Your task to perform on an android device: Toggle the flashlight Image 0: 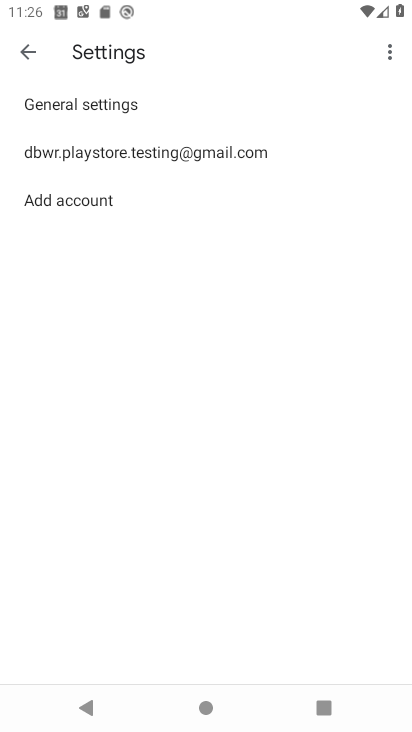
Step 0: press home button
Your task to perform on an android device: Toggle the flashlight Image 1: 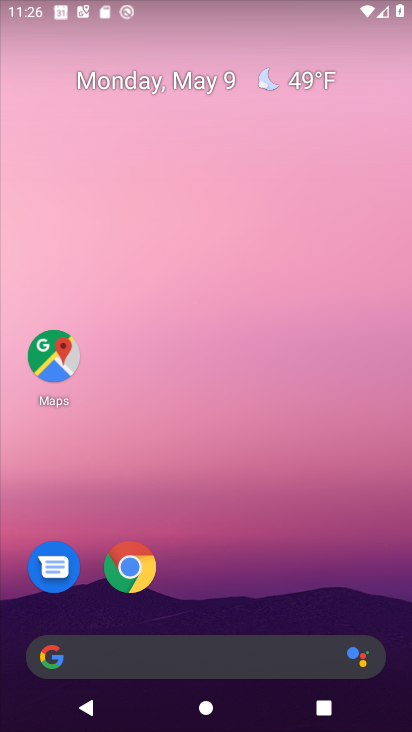
Step 1: drag from (217, 0) to (103, 418)
Your task to perform on an android device: Toggle the flashlight Image 2: 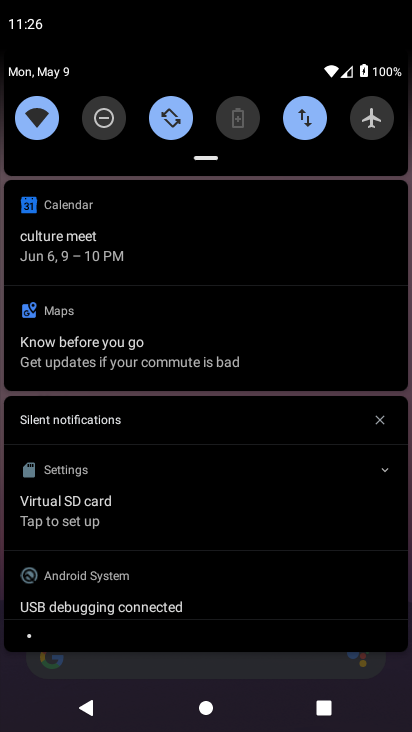
Step 2: drag from (230, 164) to (152, 530)
Your task to perform on an android device: Toggle the flashlight Image 3: 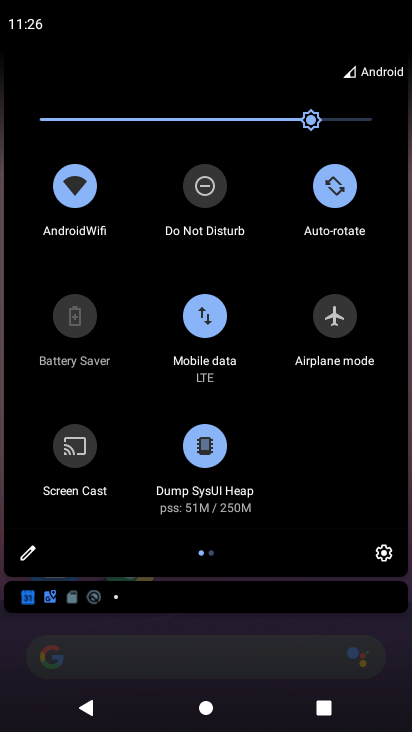
Step 3: drag from (339, 356) to (39, 318)
Your task to perform on an android device: Toggle the flashlight Image 4: 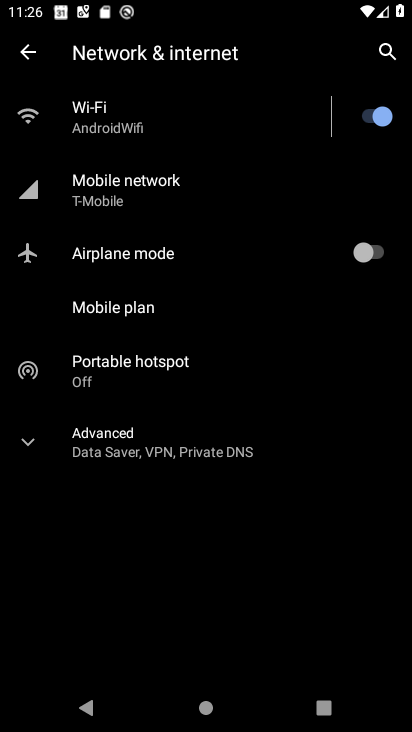
Step 4: click (24, 58)
Your task to perform on an android device: Toggle the flashlight Image 5: 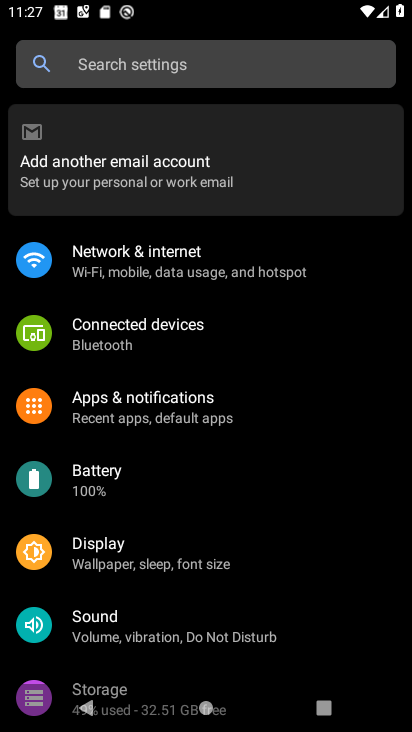
Step 5: drag from (239, 17) to (149, 433)
Your task to perform on an android device: Toggle the flashlight Image 6: 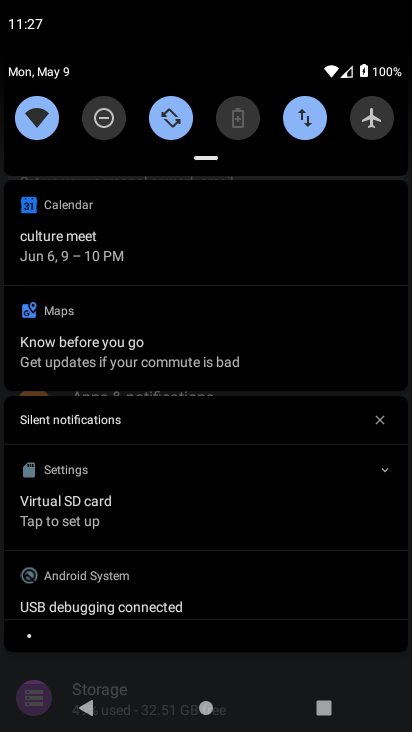
Step 6: drag from (184, 163) to (139, 490)
Your task to perform on an android device: Toggle the flashlight Image 7: 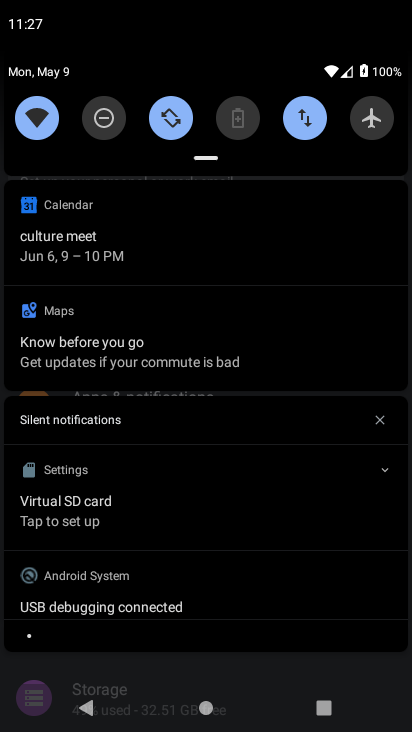
Step 7: drag from (206, 124) to (173, 425)
Your task to perform on an android device: Toggle the flashlight Image 8: 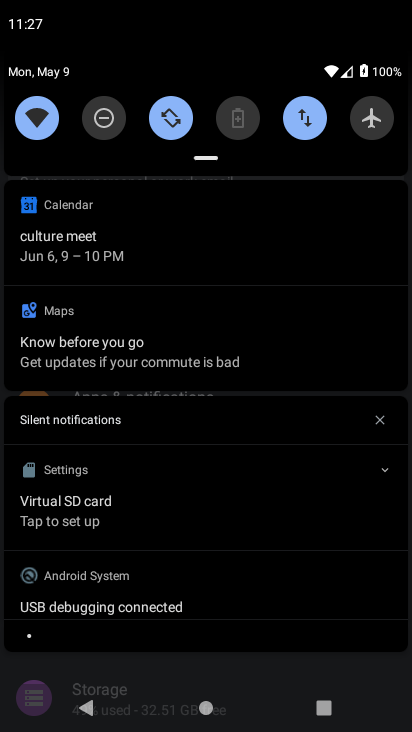
Step 8: drag from (181, 39) to (190, 411)
Your task to perform on an android device: Toggle the flashlight Image 9: 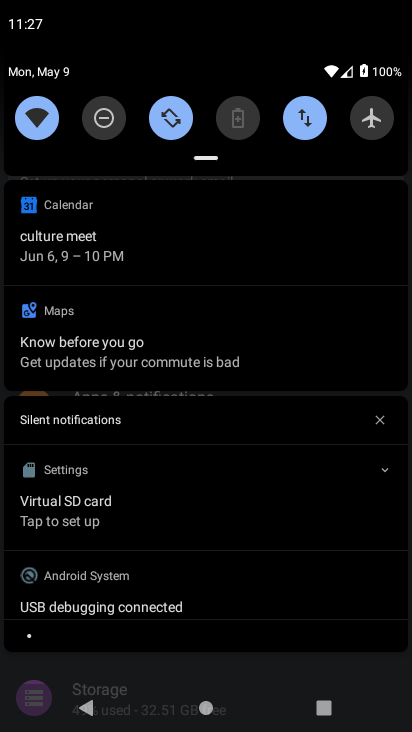
Step 9: drag from (251, 132) to (152, 549)
Your task to perform on an android device: Toggle the flashlight Image 10: 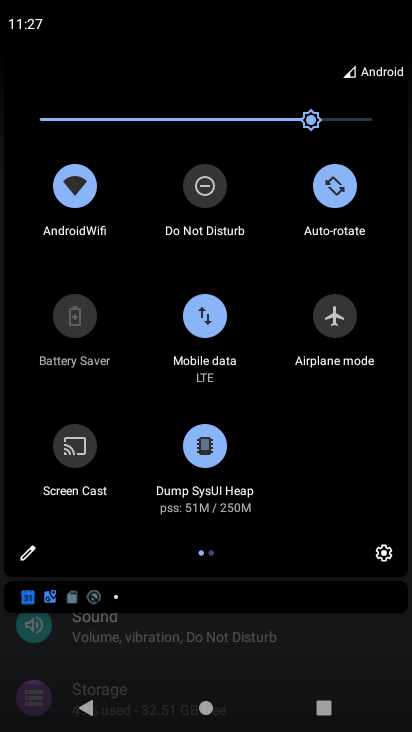
Step 10: drag from (320, 444) to (6, 429)
Your task to perform on an android device: Toggle the flashlight Image 11: 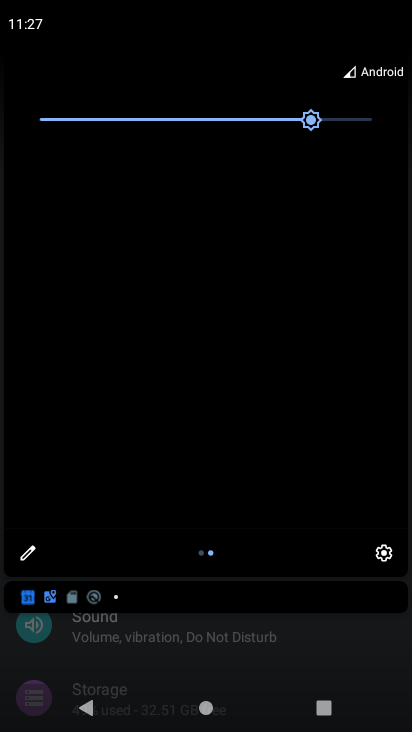
Step 11: click (32, 554)
Your task to perform on an android device: Toggle the flashlight Image 12: 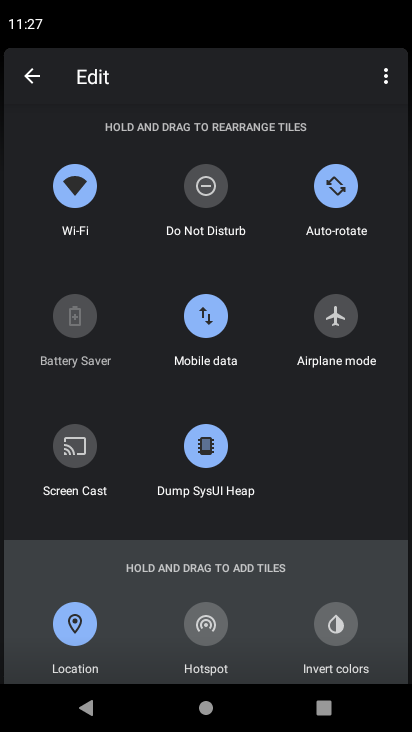
Step 12: task complete